Your task to perform on an android device: open chrome and create a bookmark for the current page Image 0: 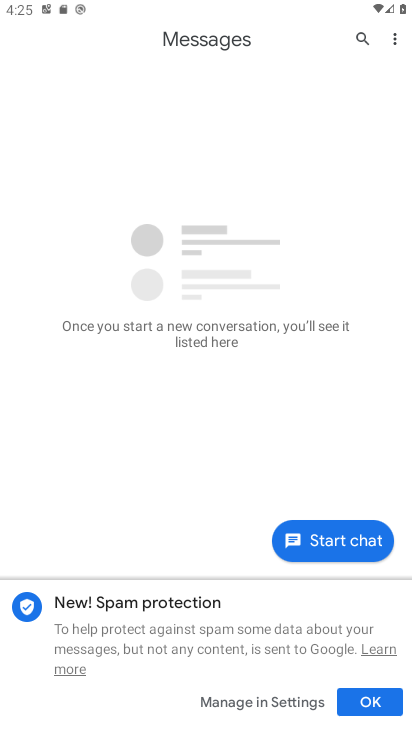
Step 0: press home button
Your task to perform on an android device: open chrome and create a bookmark for the current page Image 1: 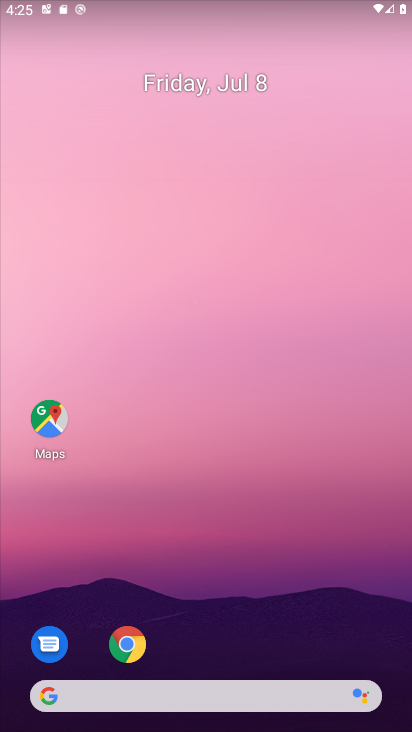
Step 1: click (129, 645)
Your task to perform on an android device: open chrome and create a bookmark for the current page Image 2: 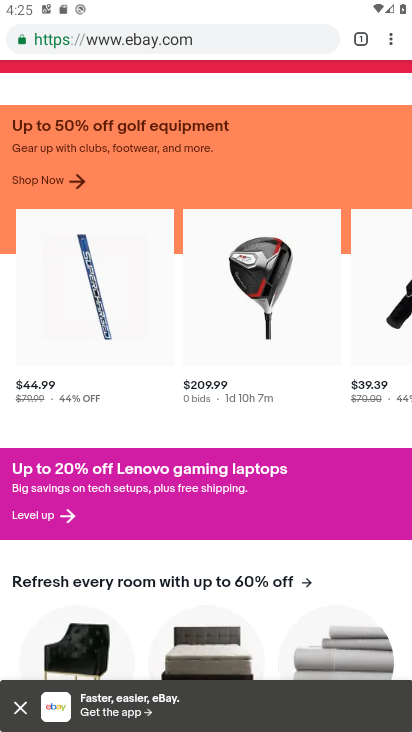
Step 2: click (393, 39)
Your task to perform on an android device: open chrome and create a bookmark for the current page Image 3: 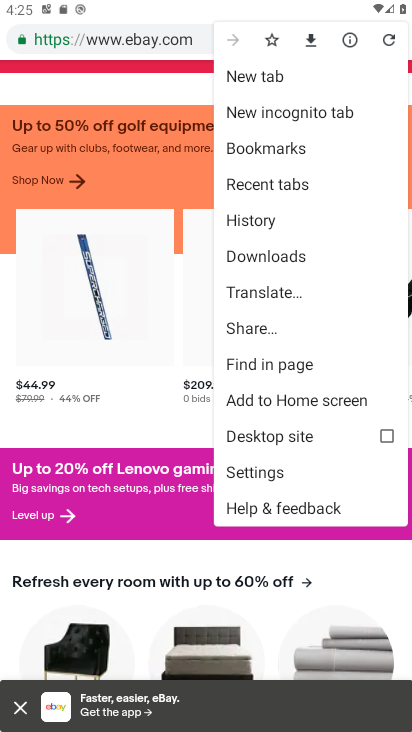
Step 3: click (271, 40)
Your task to perform on an android device: open chrome and create a bookmark for the current page Image 4: 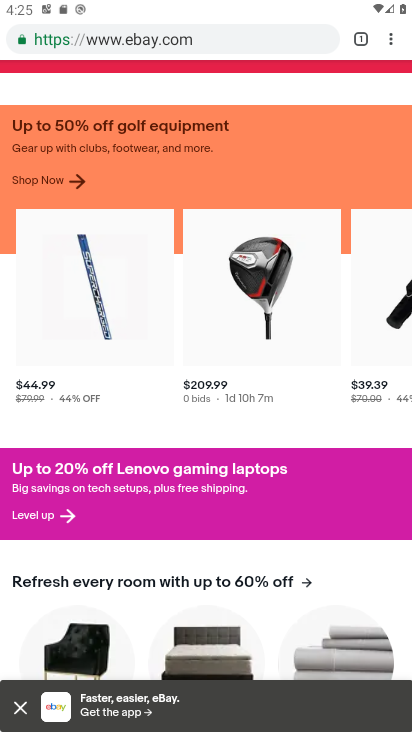
Step 4: task complete